Your task to perform on an android device: make emails show in primary in the gmail app Image 0: 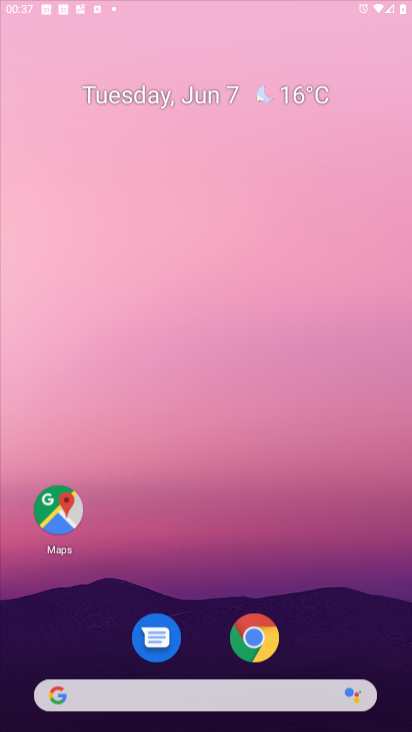
Step 0: drag from (298, 704) to (248, 292)
Your task to perform on an android device: make emails show in primary in the gmail app Image 1: 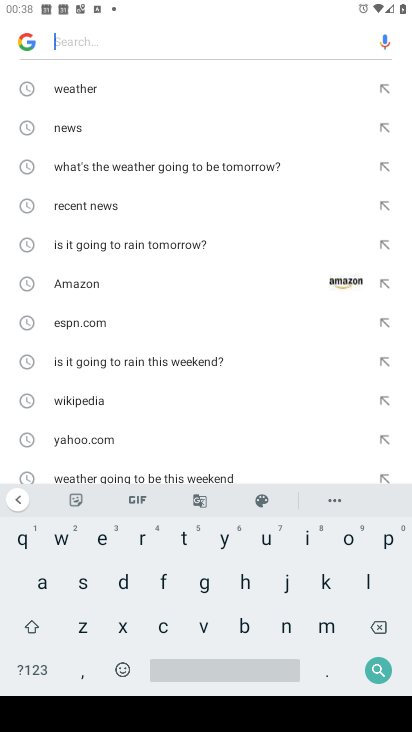
Step 1: press home button
Your task to perform on an android device: make emails show in primary in the gmail app Image 2: 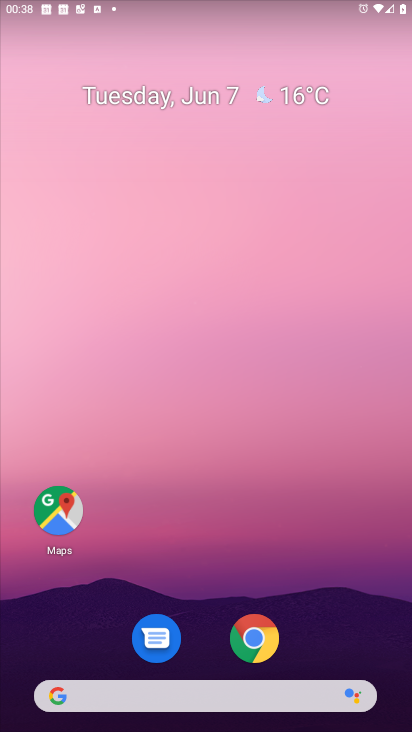
Step 2: drag from (210, 703) to (184, 66)
Your task to perform on an android device: make emails show in primary in the gmail app Image 3: 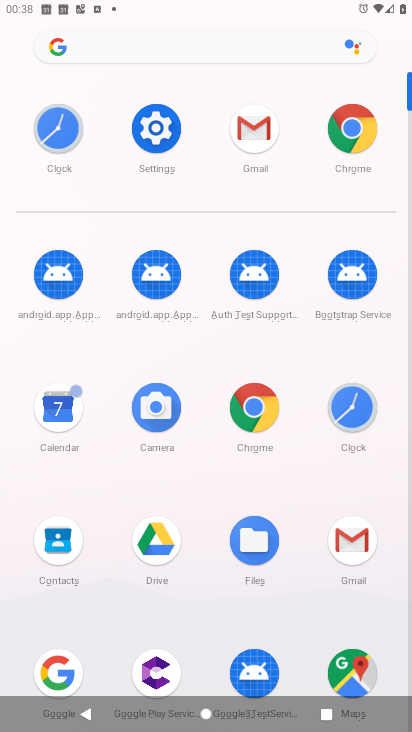
Step 3: click (340, 543)
Your task to perform on an android device: make emails show in primary in the gmail app Image 4: 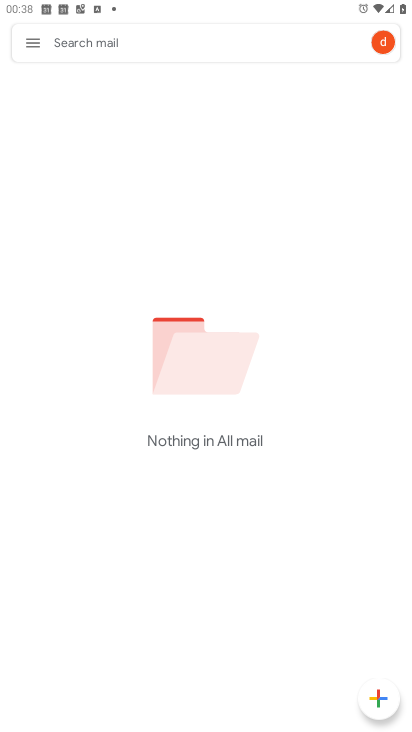
Step 4: click (23, 36)
Your task to perform on an android device: make emails show in primary in the gmail app Image 5: 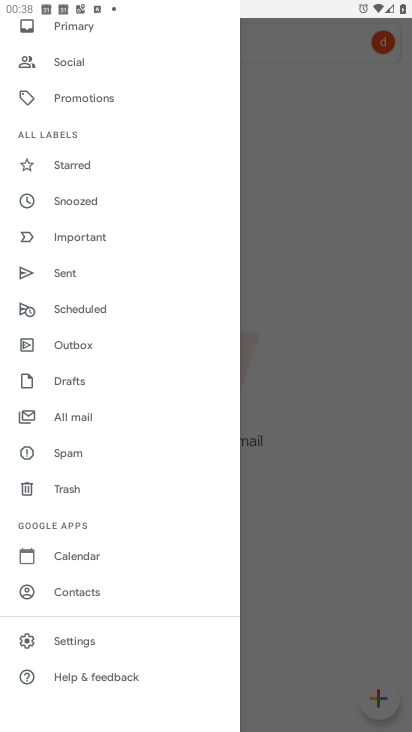
Step 5: click (64, 32)
Your task to perform on an android device: make emails show in primary in the gmail app Image 6: 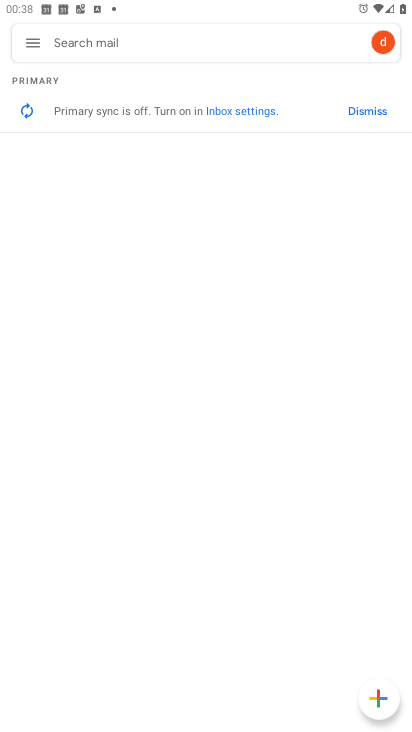
Step 6: task complete